Your task to perform on an android device: Toggle the flashlight Image 0: 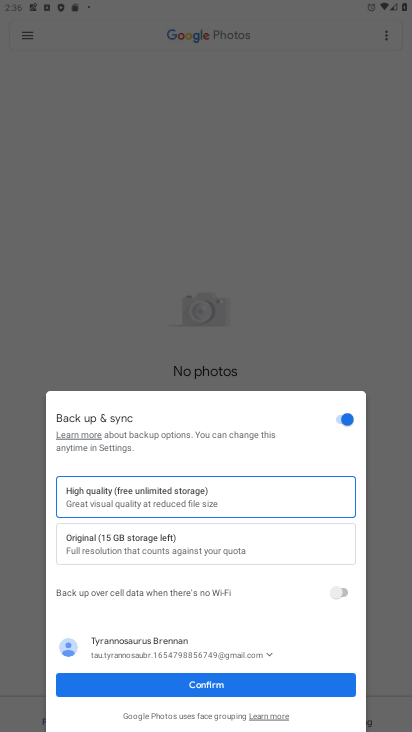
Step 0: press home button
Your task to perform on an android device: Toggle the flashlight Image 1: 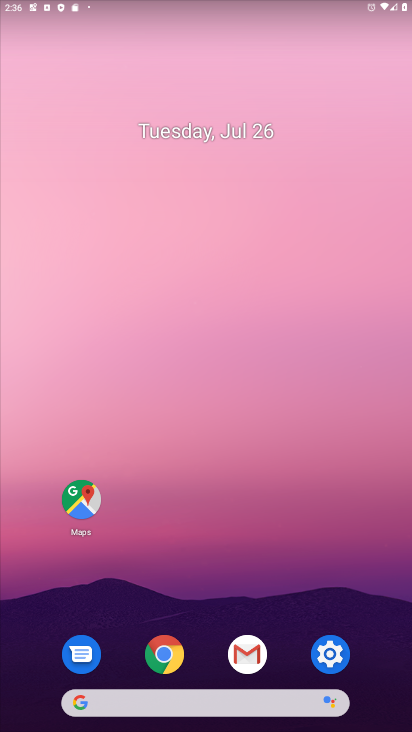
Step 1: click (315, 636)
Your task to perform on an android device: Toggle the flashlight Image 2: 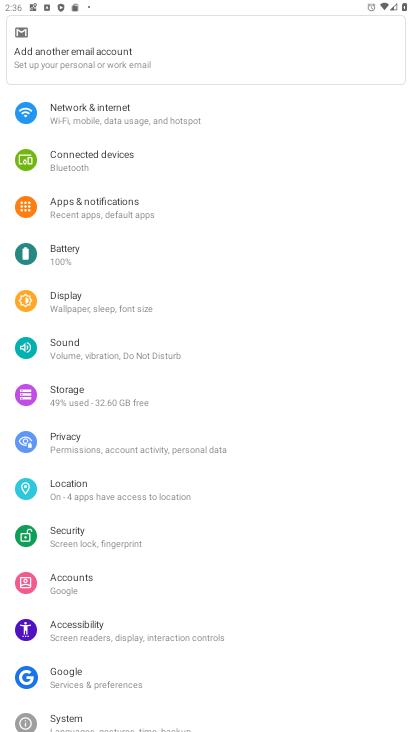
Step 2: drag from (102, 91) to (113, 247)
Your task to perform on an android device: Toggle the flashlight Image 3: 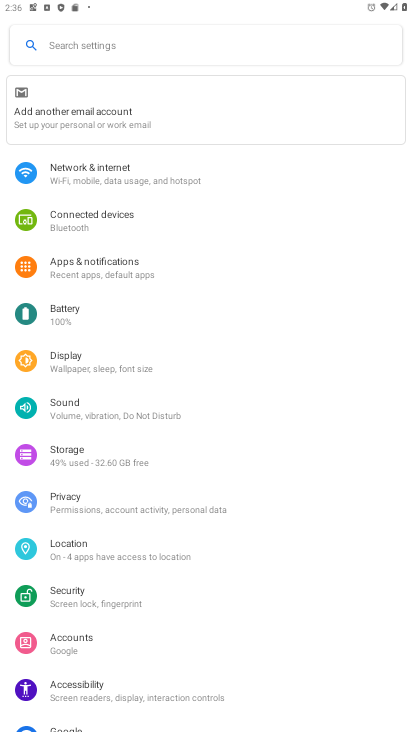
Step 3: click (90, 39)
Your task to perform on an android device: Toggle the flashlight Image 4: 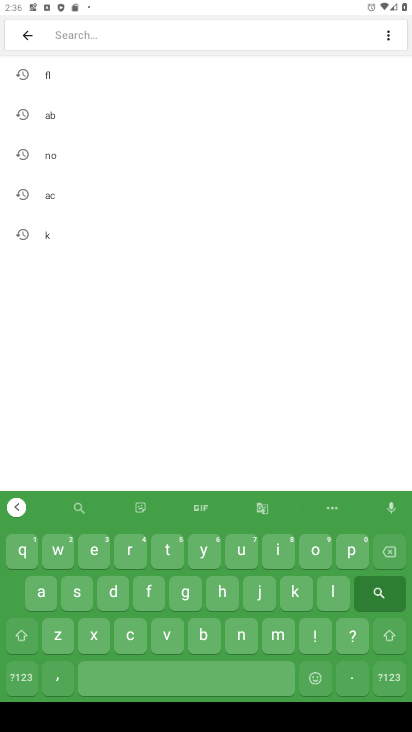
Step 4: click (152, 590)
Your task to perform on an android device: Toggle the flashlight Image 5: 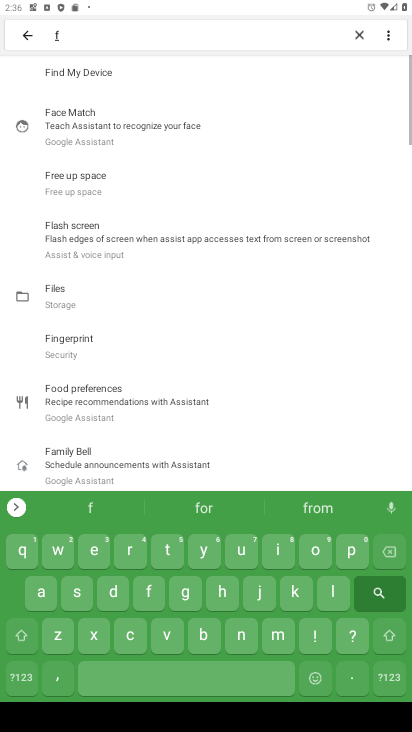
Step 5: click (344, 590)
Your task to perform on an android device: Toggle the flashlight Image 6: 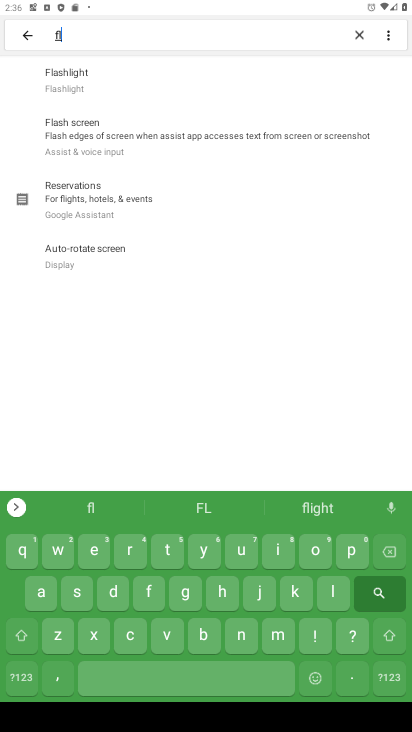
Step 6: click (103, 71)
Your task to perform on an android device: Toggle the flashlight Image 7: 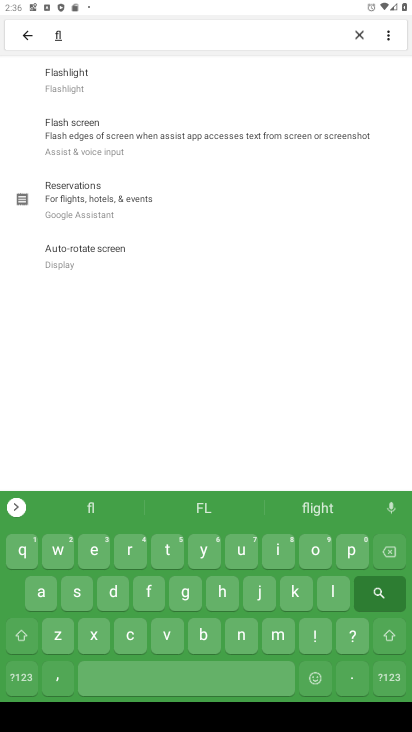
Step 7: task complete